Your task to perform on an android device: Go to accessibility settings Image 0: 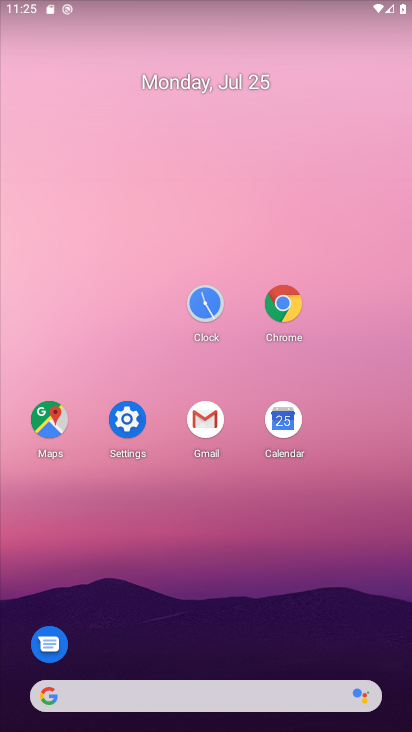
Step 0: click (127, 420)
Your task to perform on an android device: Go to accessibility settings Image 1: 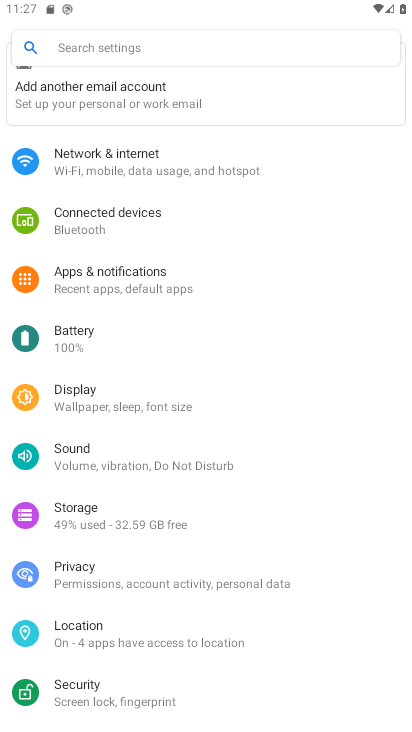
Step 1: drag from (297, 676) to (269, 288)
Your task to perform on an android device: Go to accessibility settings Image 2: 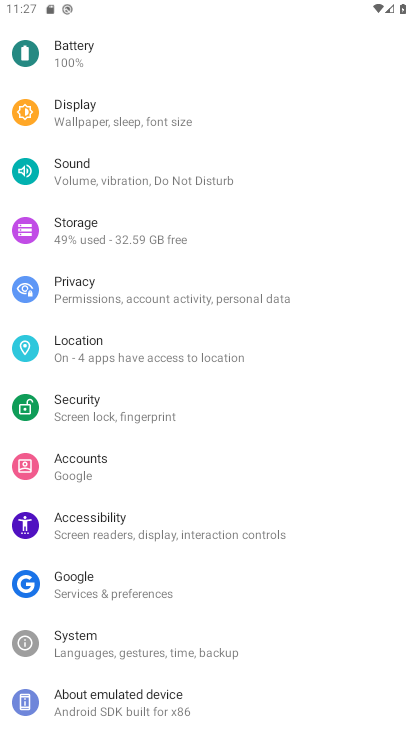
Step 2: click (80, 520)
Your task to perform on an android device: Go to accessibility settings Image 3: 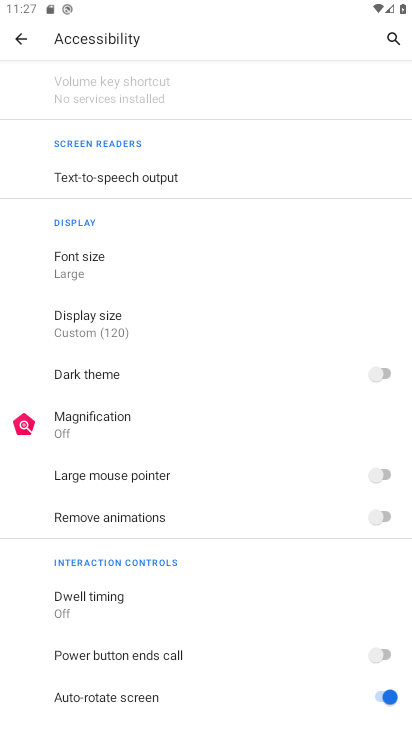
Step 3: task complete